Your task to perform on an android device: change the clock display to digital Image 0: 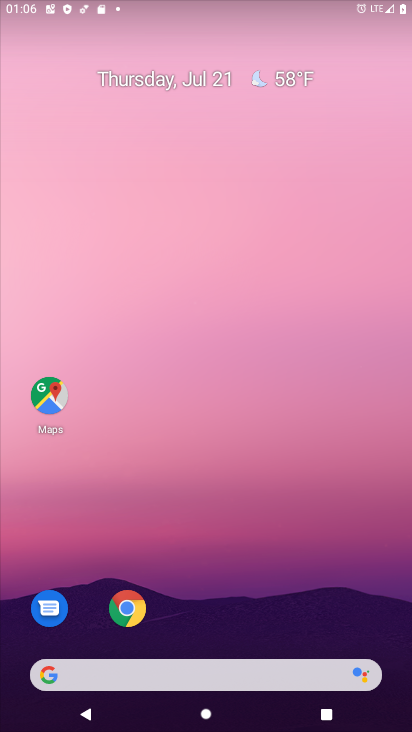
Step 0: click (187, 79)
Your task to perform on an android device: change the clock display to digital Image 1: 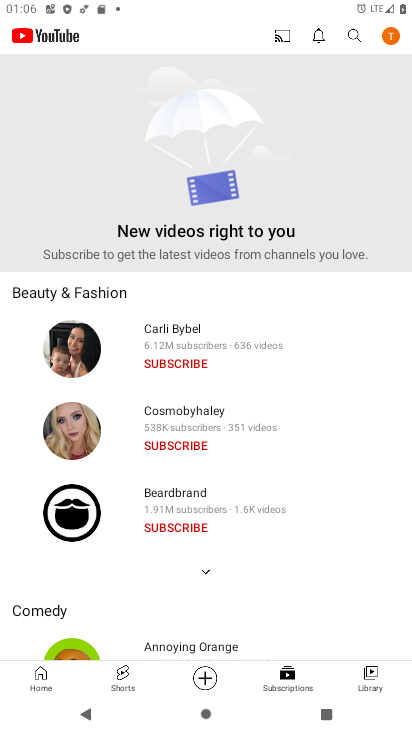
Step 1: press home button
Your task to perform on an android device: change the clock display to digital Image 2: 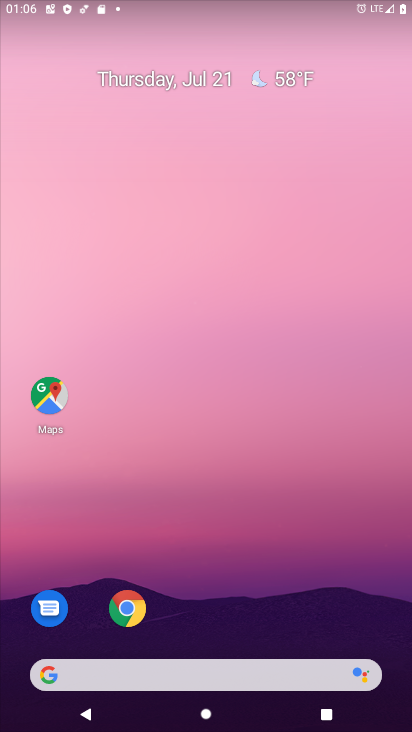
Step 2: drag from (201, 649) to (199, 89)
Your task to perform on an android device: change the clock display to digital Image 3: 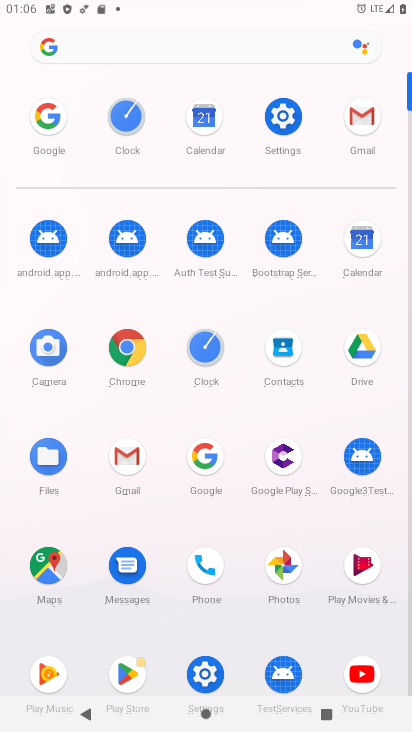
Step 3: click (122, 103)
Your task to perform on an android device: change the clock display to digital Image 4: 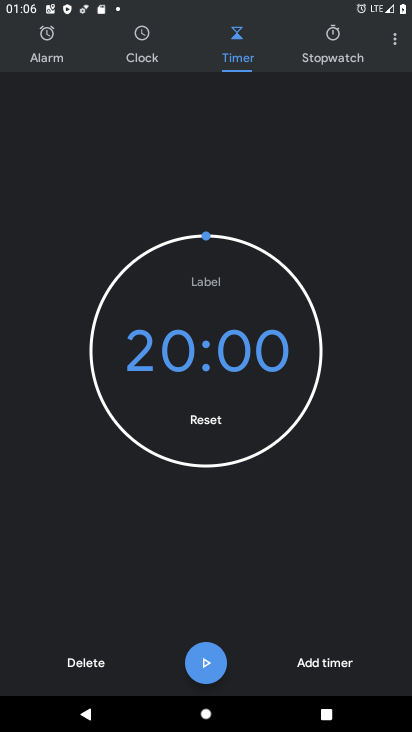
Step 4: click (85, 663)
Your task to perform on an android device: change the clock display to digital Image 5: 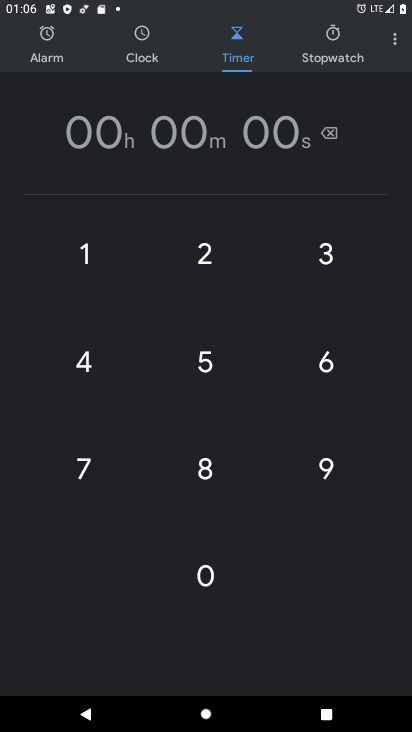
Step 5: click (393, 40)
Your task to perform on an android device: change the clock display to digital Image 6: 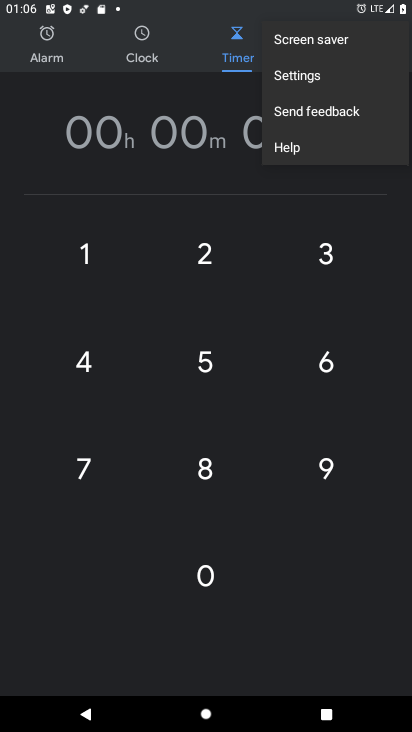
Step 6: click (324, 79)
Your task to perform on an android device: change the clock display to digital Image 7: 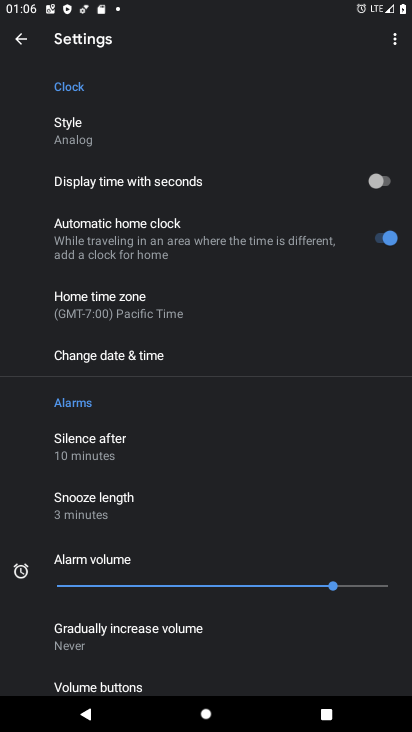
Step 7: click (112, 126)
Your task to perform on an android device: change the clock display to digital Image 8: 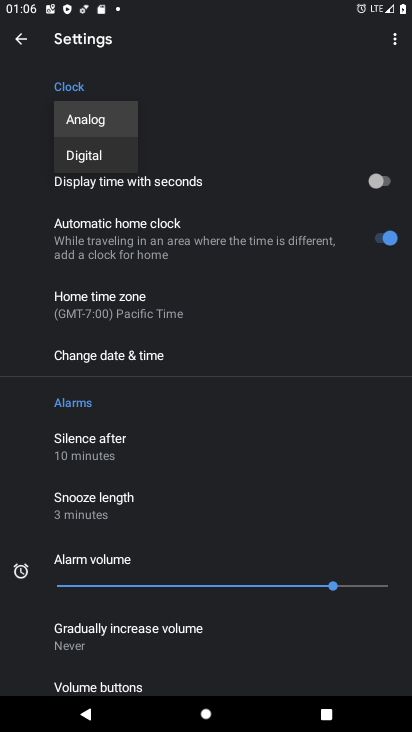
Step 8: click (104, 155)
Your task to perform on an android device: change the clock display to digital Image 9: 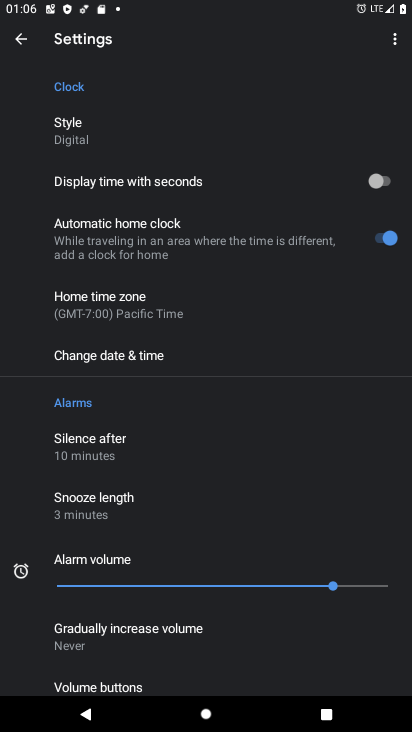
Step 9: task complete